Your task to perform on an android device: Go to Wikipedia Image 0: 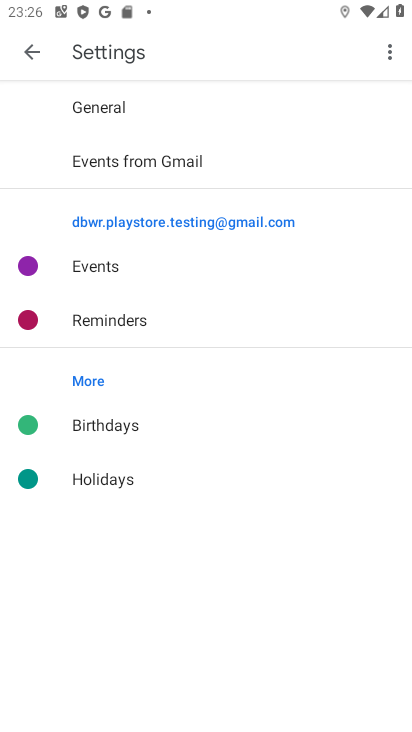
Step 0: press home button
Your task to perform on an android device: Go to Wikipedia Image 1: 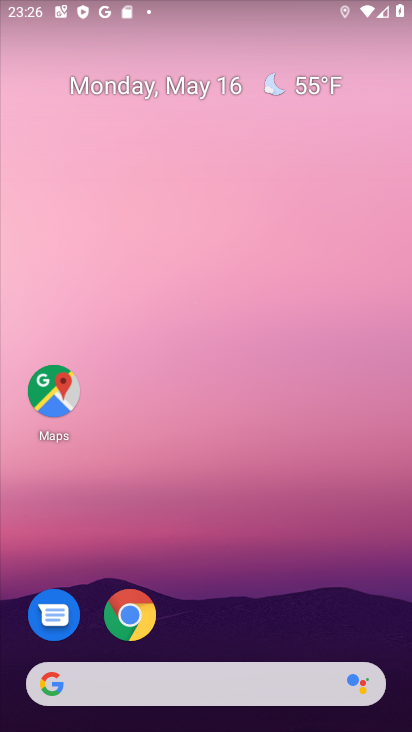
Step 1: click (126, 627)
Your task to perform on an android device: Go to Wikipedia Image 2: 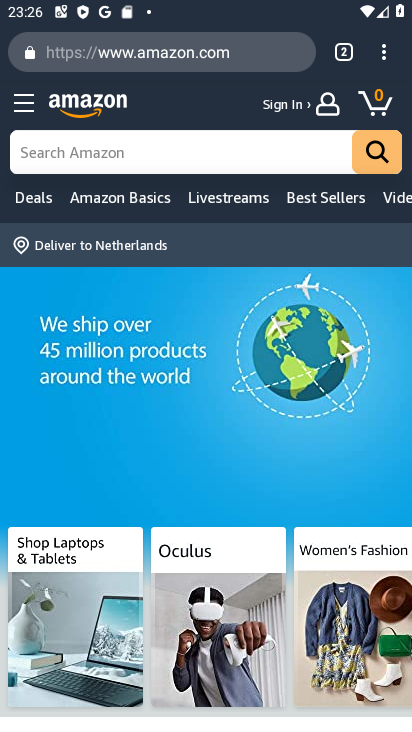
Step 2: click (330, 87)
Your task to perform on an android device: Go to Wikipedia Image 3: 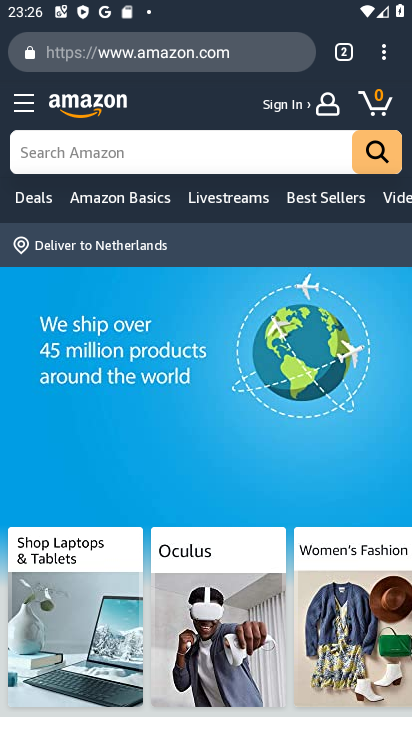
Step 3: click (357, 47)
Your task to perform on an android device: Go to Wikipedia Image 4: 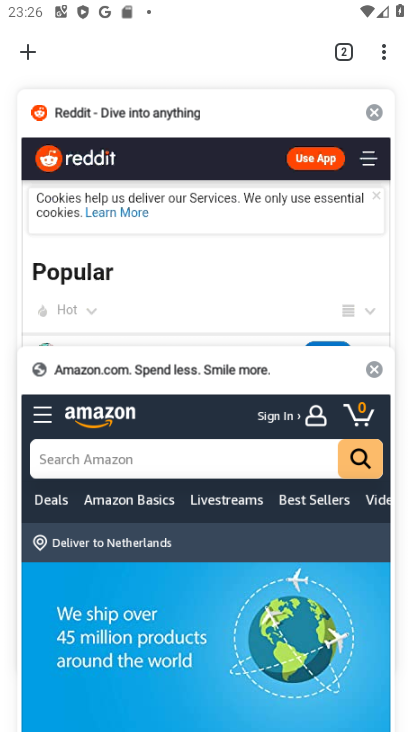
Step 4: click (34, 53)
Your task to perform on an android device: Go to Wikipedia Image 5: 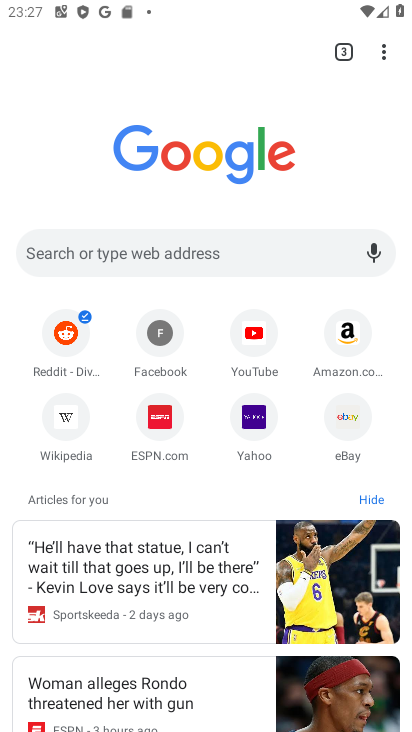
Step 5: click (70, 429)
Your task to perform on an android device: Go to Wikipedia Image 6: 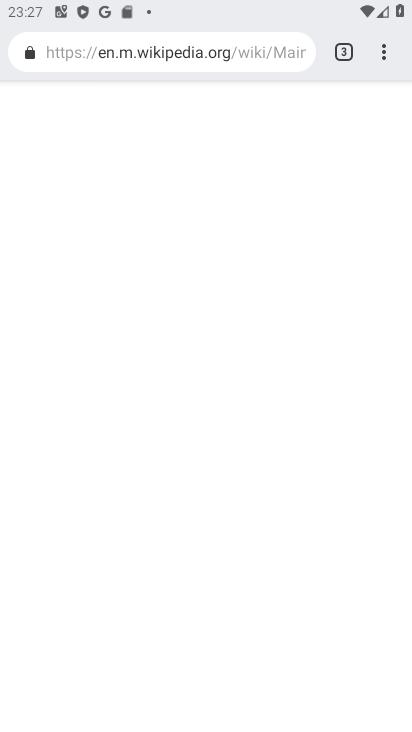
Step 6: task complete